Your task to perform on an android device: clear history in the chrome app Image 0: 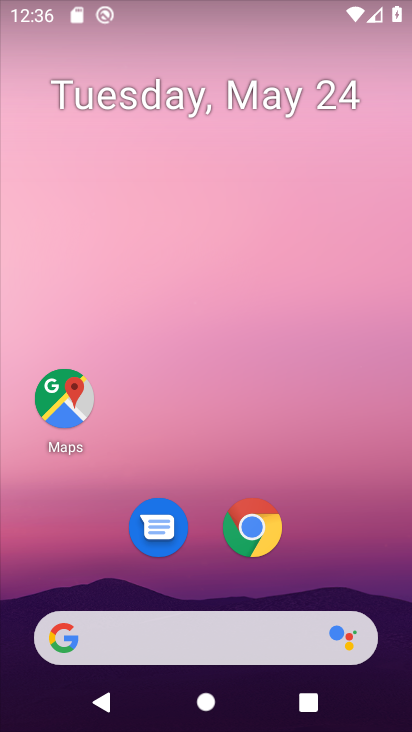
Step 0: click (247, 531)
Your task to perform on an android device: clear history in the chrome app Image 1: 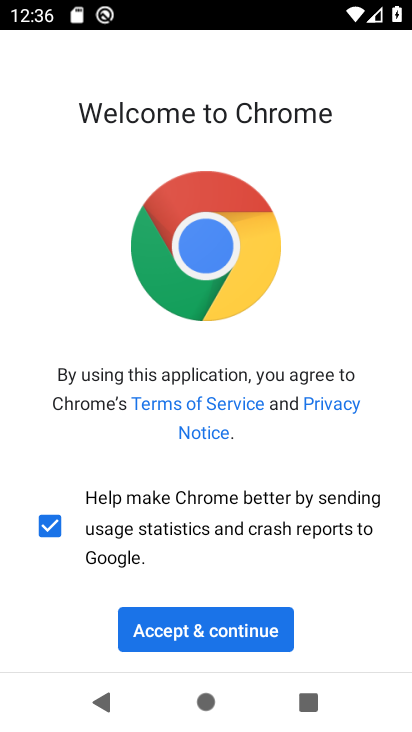
Step 1: click (190, 624)
Your task to perform on an android device: clear history in the chrome app Image 2: 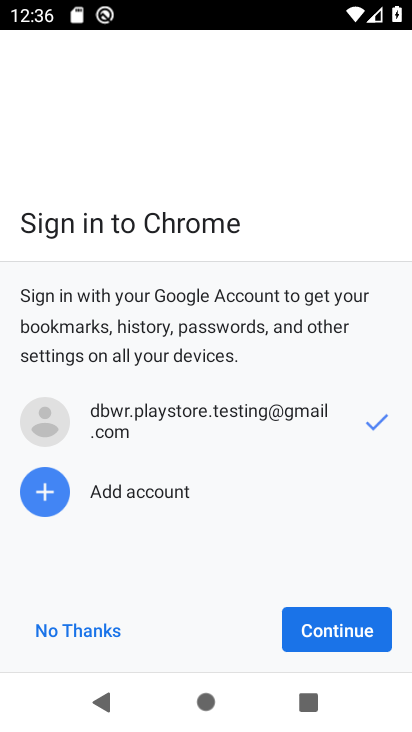
Step 2: click (320, 632)
Your task to perform on an android device: clear history in the chrome app Image 3: 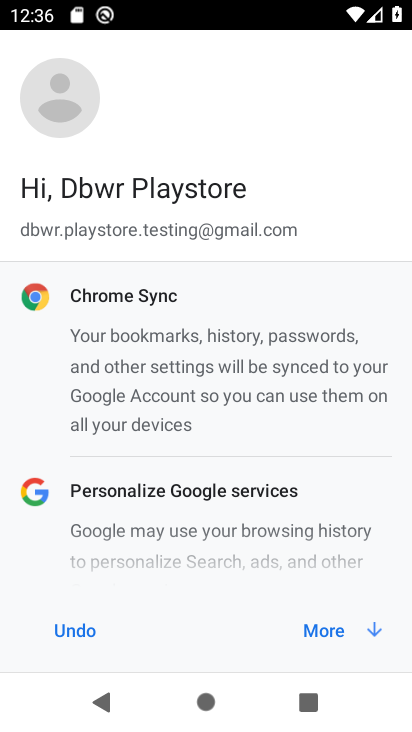
Step 3: click (364, 635)
Your task to perform on an android device: clear history in the chrome app Image 4: 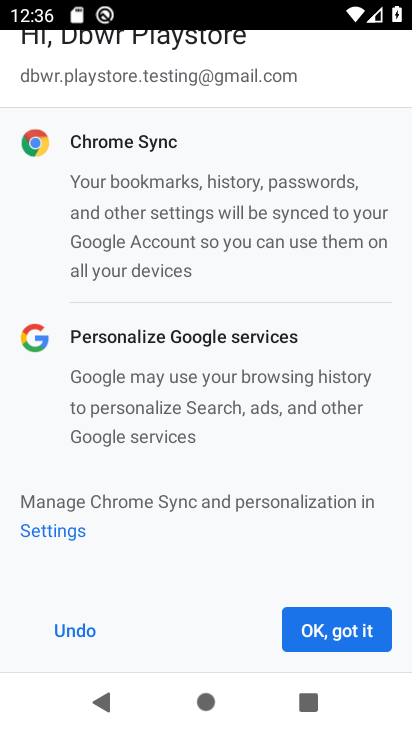
Step 4: click (342, 635)
Your task to perform on an android device: clear history in the chrome app Image 5: 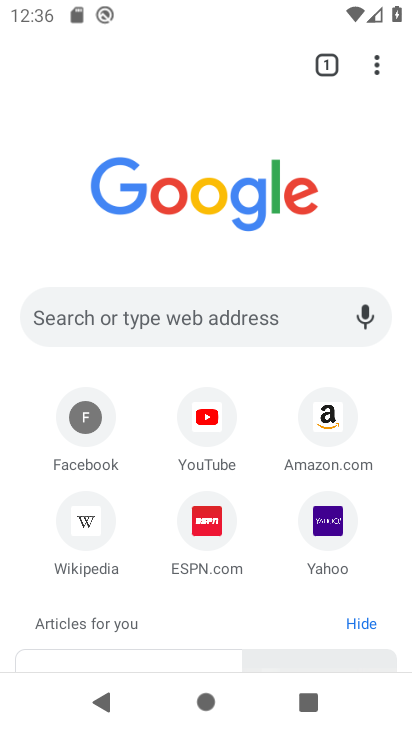
Step 5: click (378, 57)
Your task to perform on an android device: clear history in the chrome app Image 6: 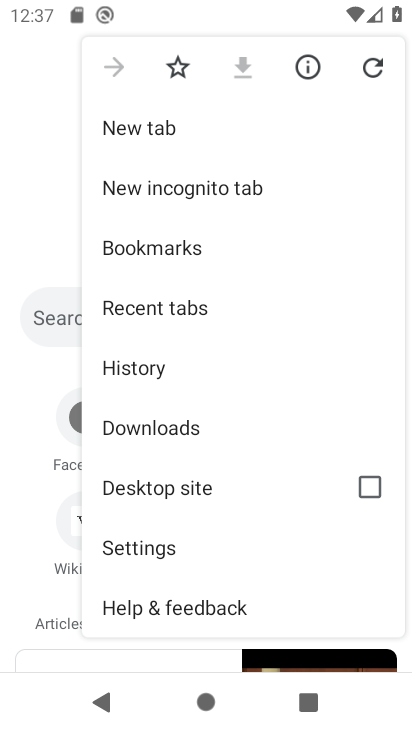
Step 6: click (136, 373)
Your task to perform on an android device: clear history in the chrome app Image 7: 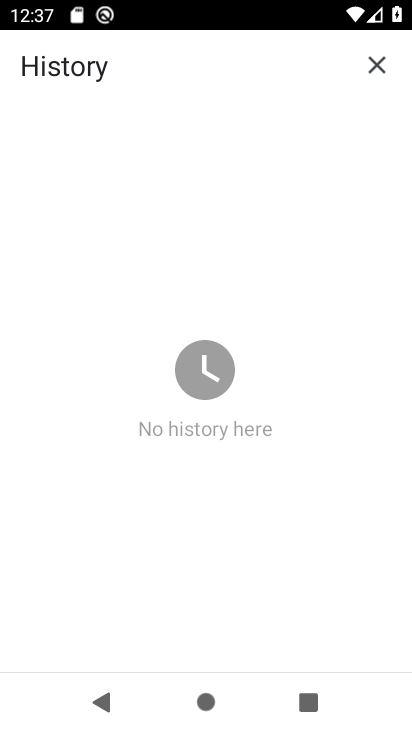
Step 7: task complete